Your task to perform on an android device: Search for Mexican restaurants on Maps Image 0: 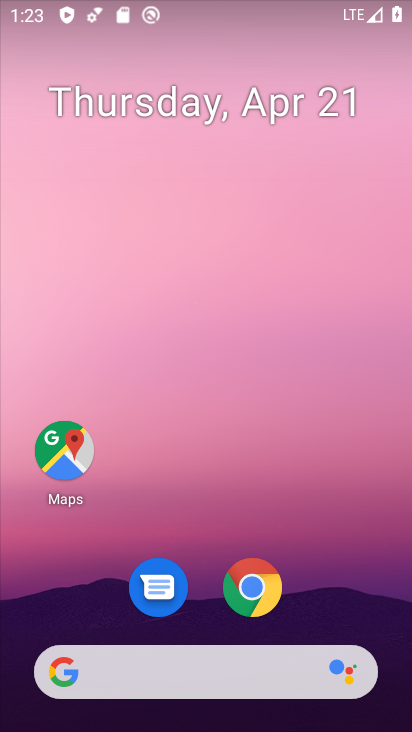
Step 0: click (64, 448)
Your task to perform on an android device: Search for Mexican restaurants on Maps Image 1: 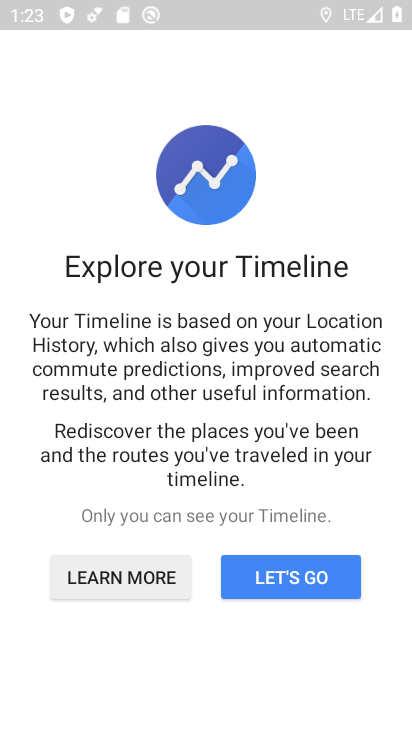
Step 1: press home button
Your task to perform on an android device: Search for Mexican restaurants on Maps Image 2: 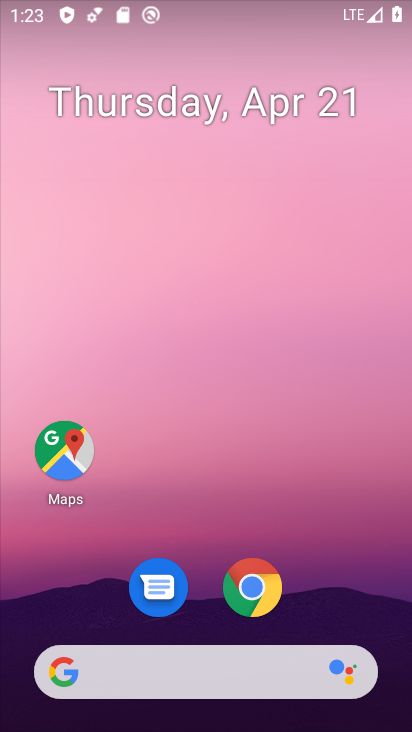
Step 2: click (63, 451)
Your task to perform on an android device: Search for Mexican restaurants on Maps Image 3: 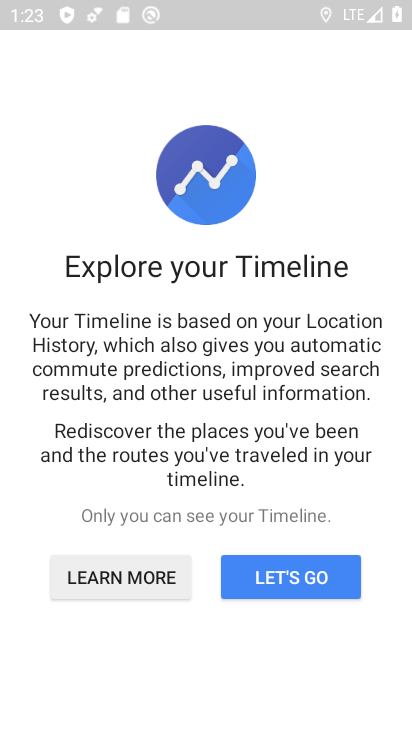
Step 3: press back button
Your task to perform on an android device: Search for Mexican restaurants on Maps Image 4: 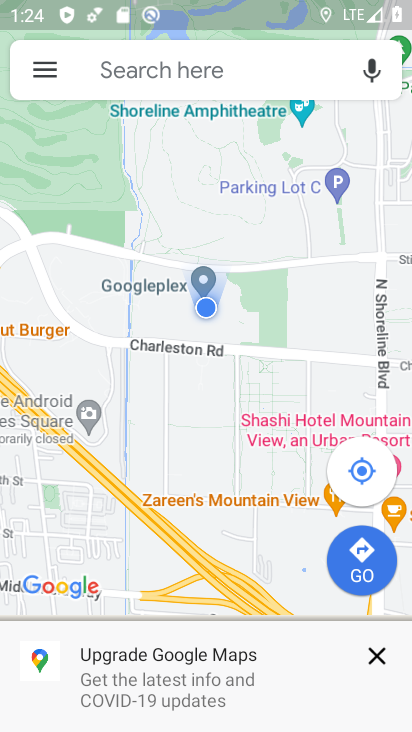
Step 4: click (157, 66)
Your task to perform on an android device: Search for Mexican restaurants on Maps Image 5: 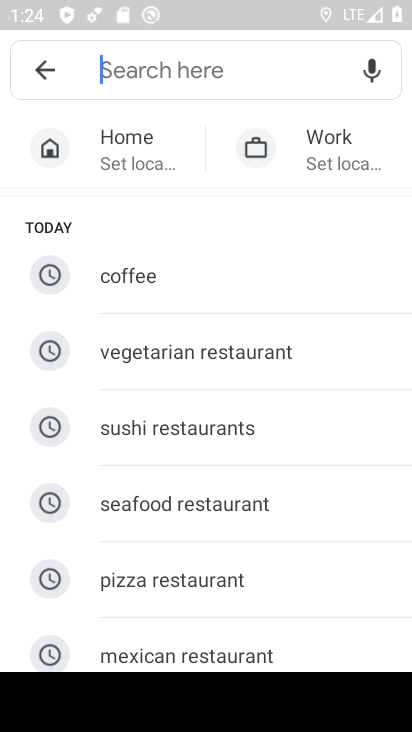
Step 5: type "mexican restaurants"
Your task to perform on an android device: Search for Mexican restaurants on Maps Image 6: 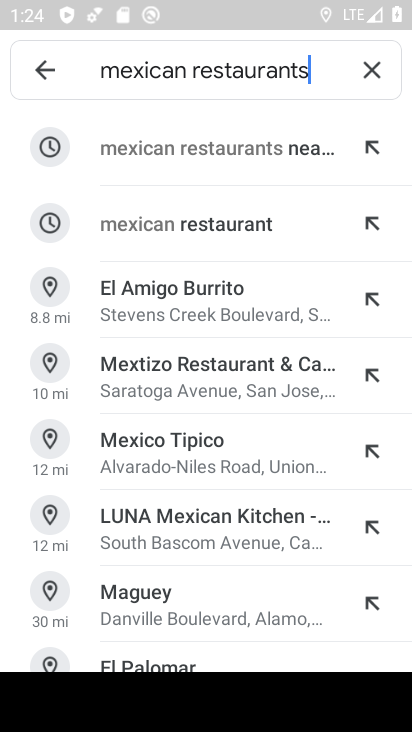
Step 6: click (151, 231)
Your task to perform on an android device: Search for Mexican restaurants on Maps Image 7: 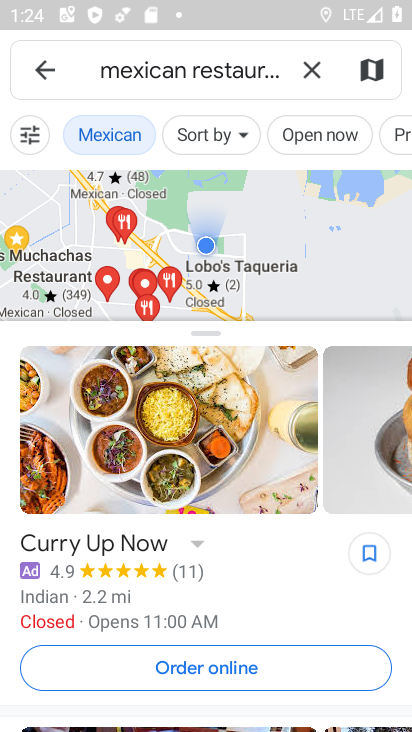
Step 7: drag from (233, 548) to (204, 178)
Your task to perform on an android device: Search for Mexican restaurants on Maps Image 8: 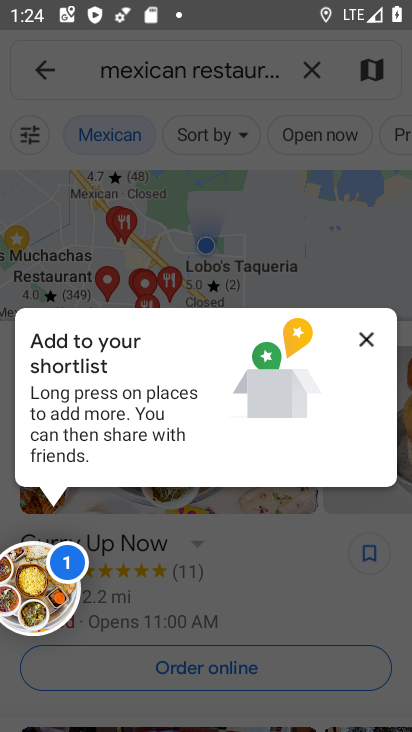
Step 8: click (362, 337)
Your task to perform on an android device: Search for Mexican restaurants on Maps Image 9: 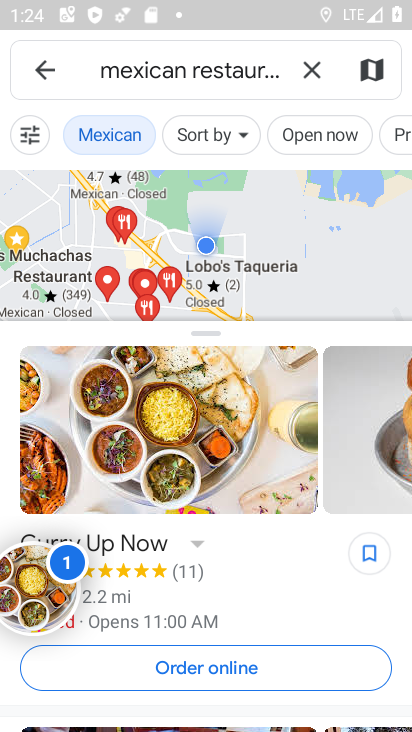
Step 9: task complete